Your task to perform on an android device: toggle data saver in the chrome app Image 0: 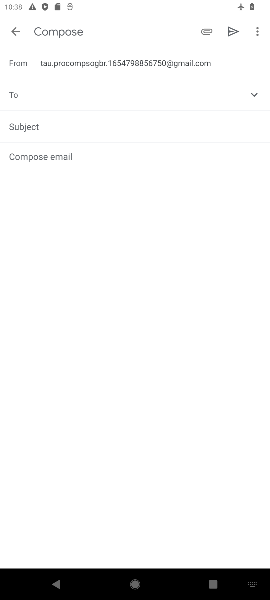
Step 0: press home button
Your task to perform on an android device: toggle data saver in the chrome app Image 1: 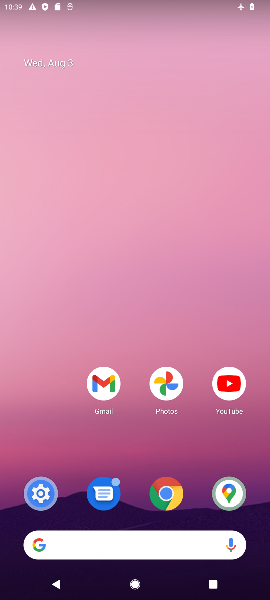
Step 1: click (40, 500)
Your task to perform on an android device: toggle data saver in the chrome app Image 2: 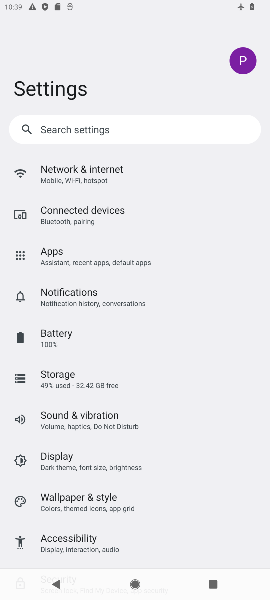
Step 2: click (113, 414)
Your task to perform on an android device: toggle data saver in the chrome app Image 3: 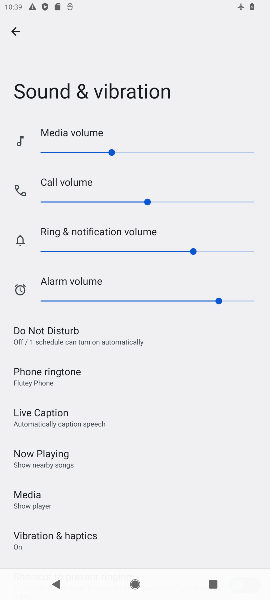
Step 3: task complete